Your task to perform on an android device: Go to Yahoo.com Image 0: 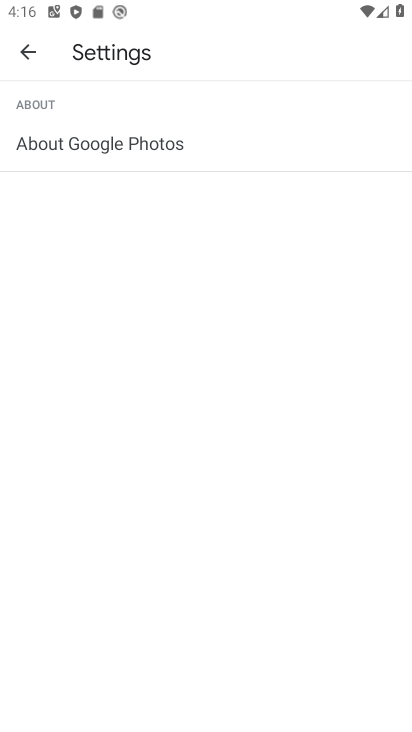
Step 0: press home button
Your task to perform on an android device: Go to Yahoo.com Image 1: 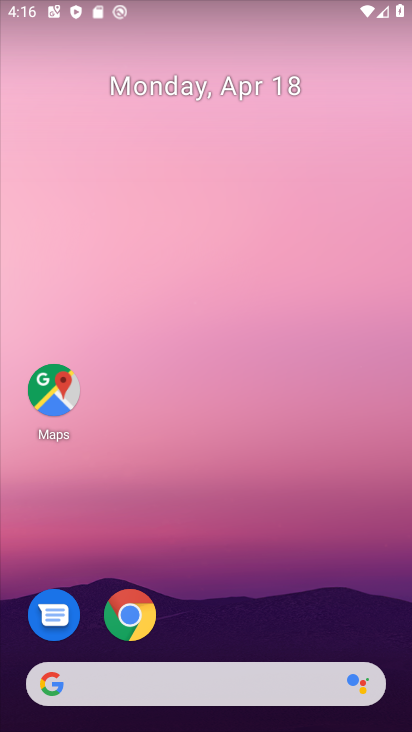
Step 1: click (127, 607)
Your task to perform on an android device: Go to Yahoo.com Image 2: 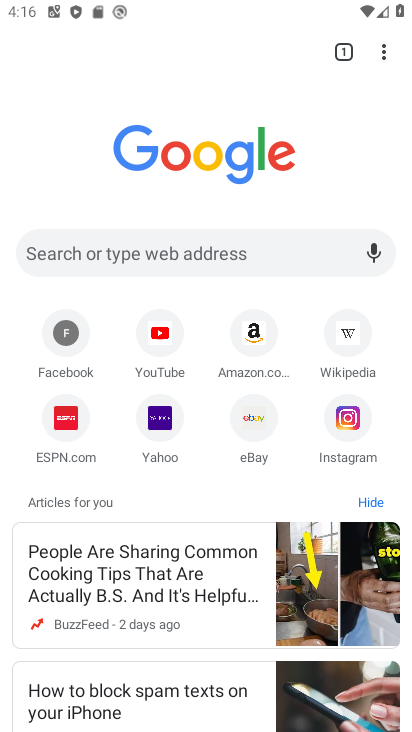
Step 2: click (157, 425)
Your task to perform on an android device: Go to Yahoo.com Image 3: 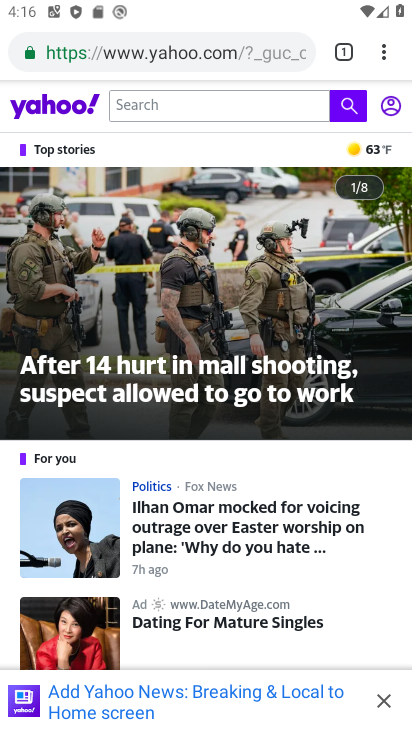
Step 3: task complete